Your task to perform on an android device: Open Google Image 0: 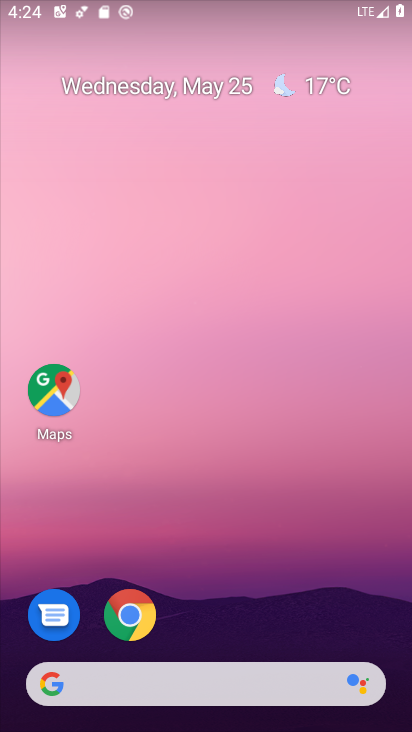
Step 0: drag from (303, 517) to (201, 45)
Your task to perform on an android device: Open Google Image 1: 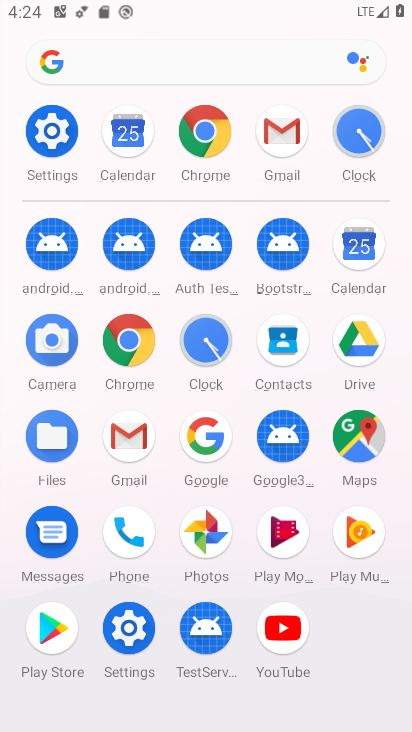
Step 1: click (207, 427)
Your task to perform on an android device: Open Google Image 2: 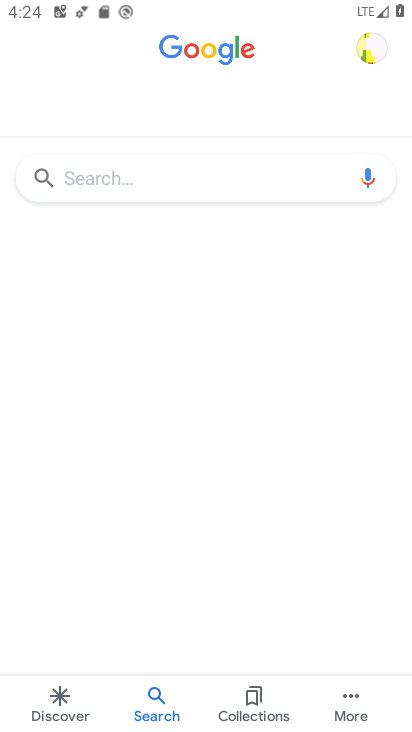
Step 2: task complete